Your task to perform on an android device: Is it going to rain tomorrow? Image 0: 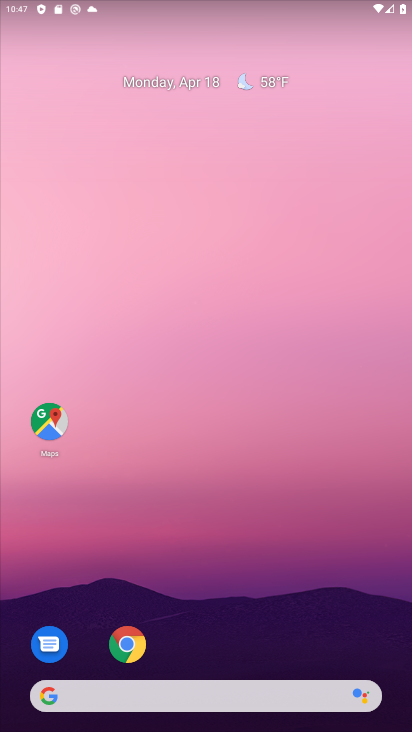
Step 0: click (207, 158)
Your task to perform on an android device: Is it going to rain tomorrow? Image 1: 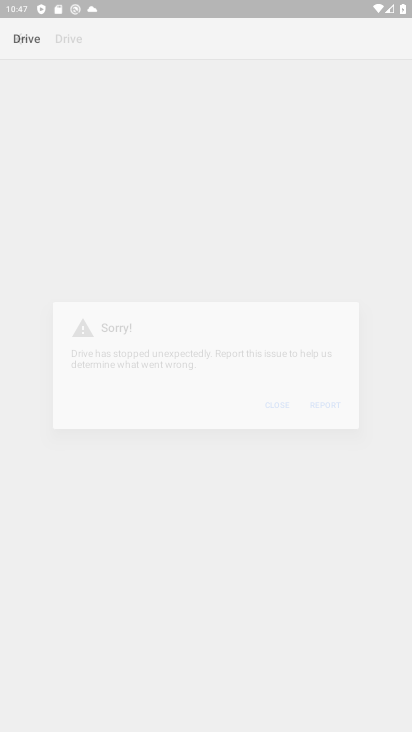
Step 1: drag from (238, 630) to (271, 240)
Your task to perform on an android device: Is it going to rain tomorrow? Image 2: 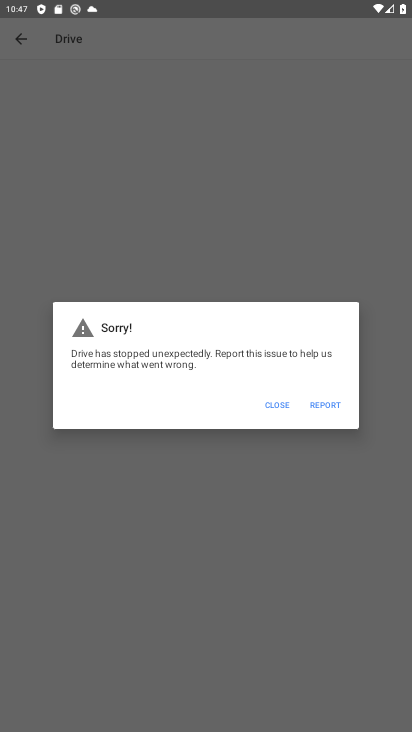
Step 2: press home button
Your task to perform on an android device: Is it going to rain tomorrow? Image 3: 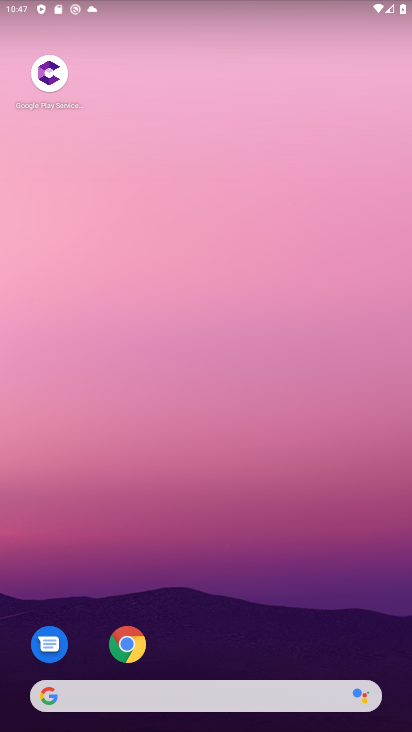
Step 3: drag from (252, 633) to (310, 192)
Your task to perform on an android device: Is it going to rain tomorrow? Image 4: 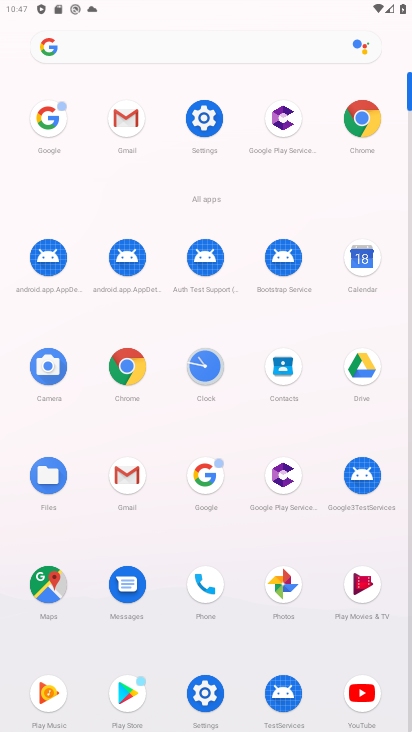
Step 4: click (126, 365)
Your task to perform on an android device: Is it going to rain tomorrow? Image 5: 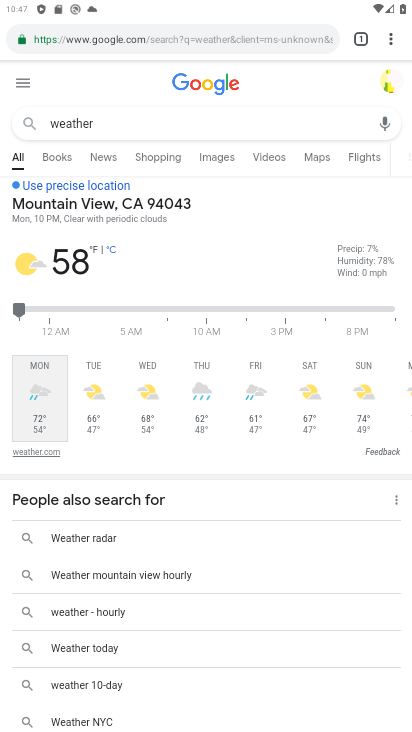
Step 5: drag from (113, 125) to (29, 119)
Your task to perform on an android device: Is it going to rain tomorrow? Image 6: 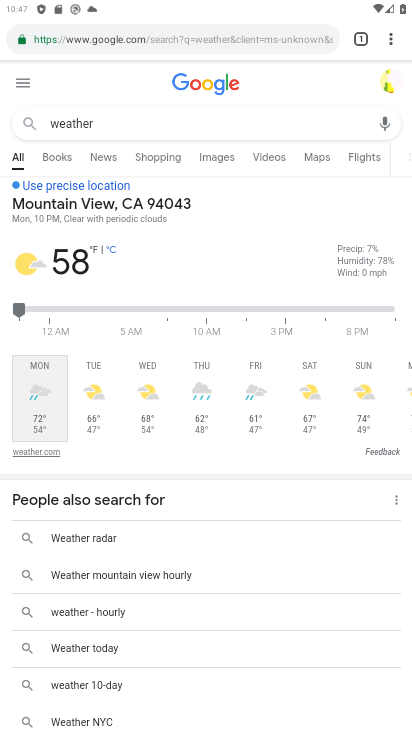
Step 6: click (77, 122)
Your task to perform on an android device: Is it going to rain tomorrow? Image 7: 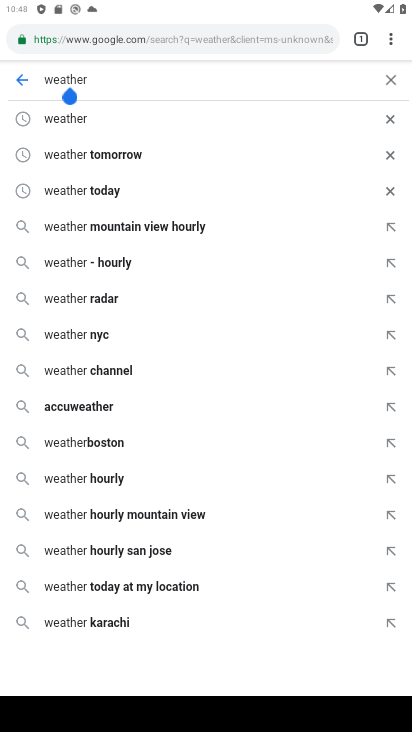
Step 7: click (388, 71)
Your task to perform on an android device: Is it going to rain tomorrow? Image 8: 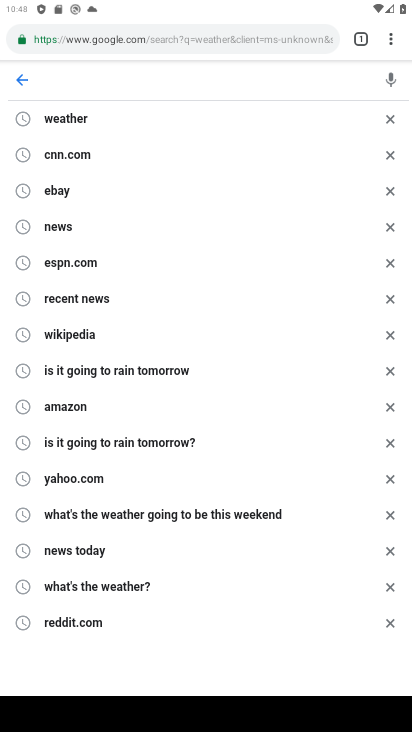
Step 8: type "is it going to rain tomorrow"
Your task to perform on an android device: Is it going to rain tomorrow? Image 9: 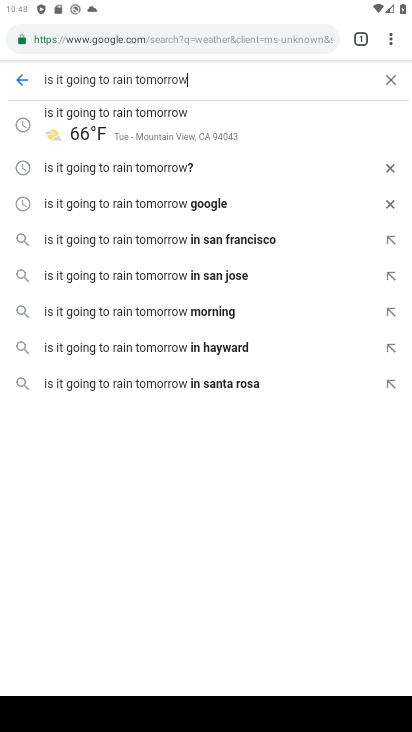
Step 9: click (75, 132)
Your task to perform on an android device: Is it going to rain tomorrow? Image 10: 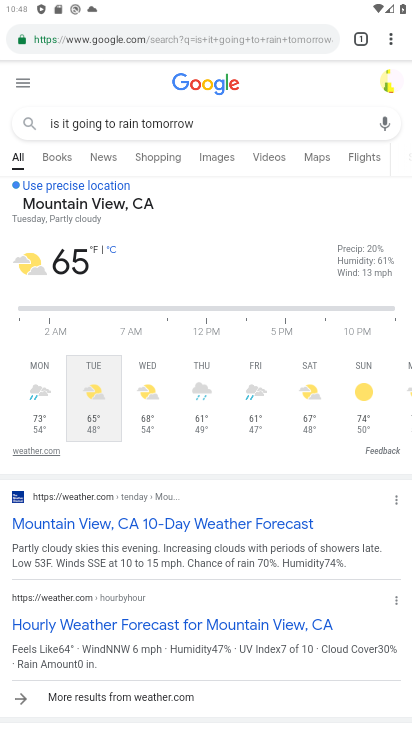
Step 10: task complete